Your task to perform on an android device: Check the news Image 0: 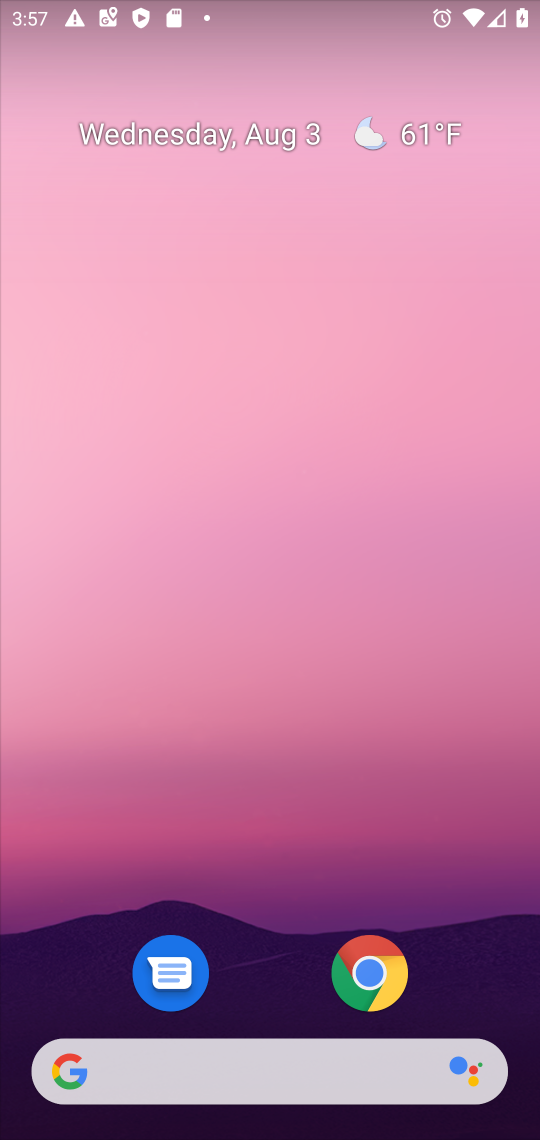
Step 0: click (353, 1053)
Your task to perform on an android device: Check the news Image 1: 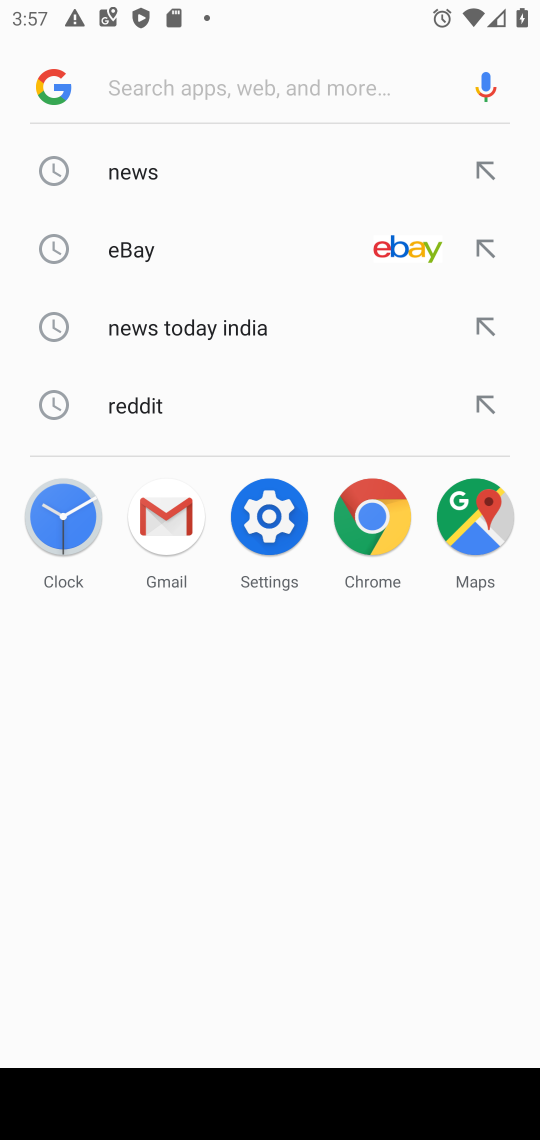
Step 1: click (147, 155)
Your task to perform on an android device: Check the news Image 2: 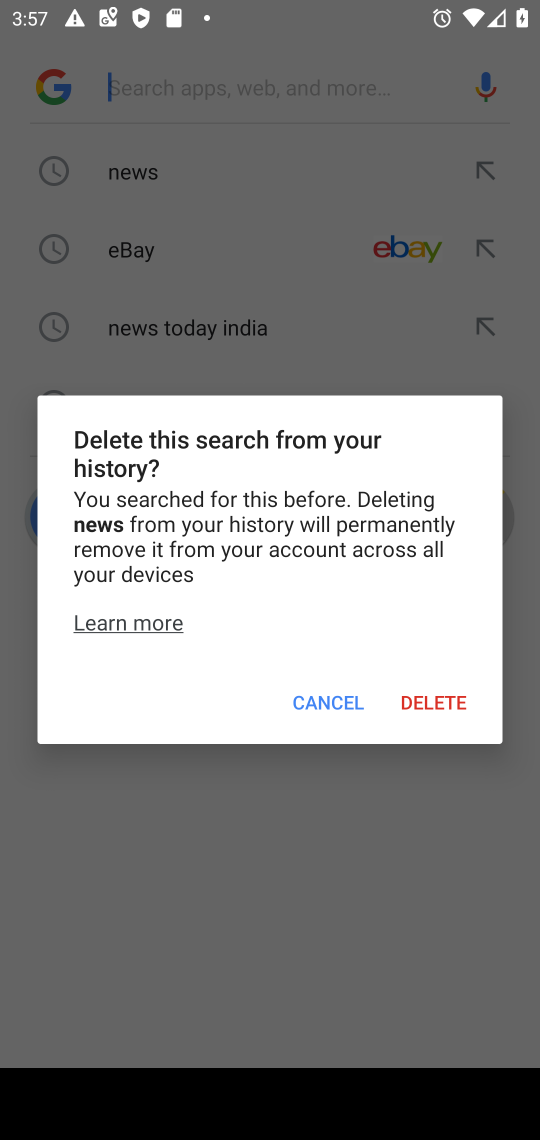
Step 2: click (343, 707)
Your task to perform on an android device: Check the news Image 3: 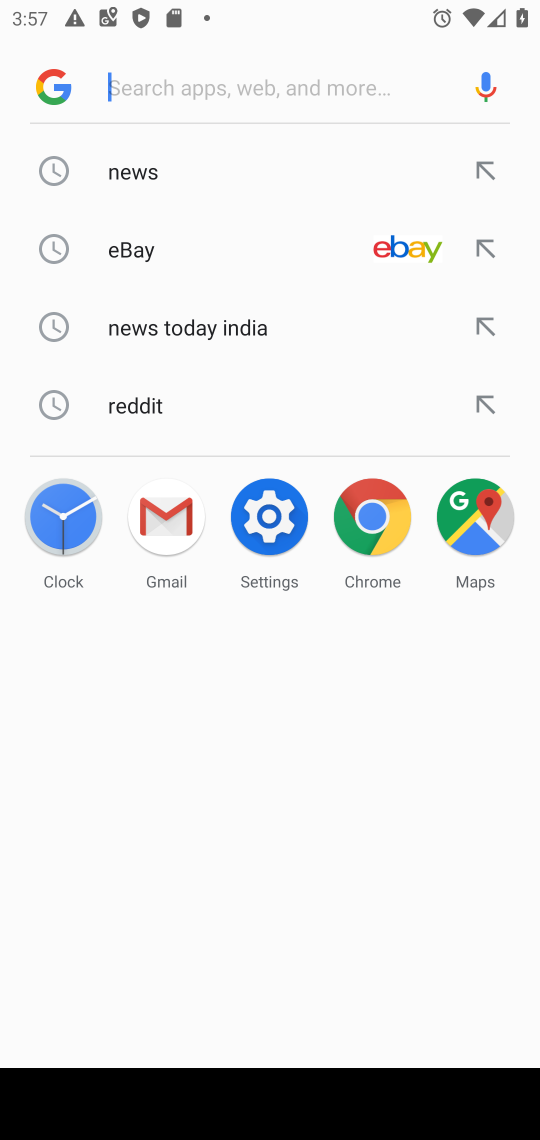
Step 3: click (166, 174)
Your task to perform on an android device: Check the news Image 4: 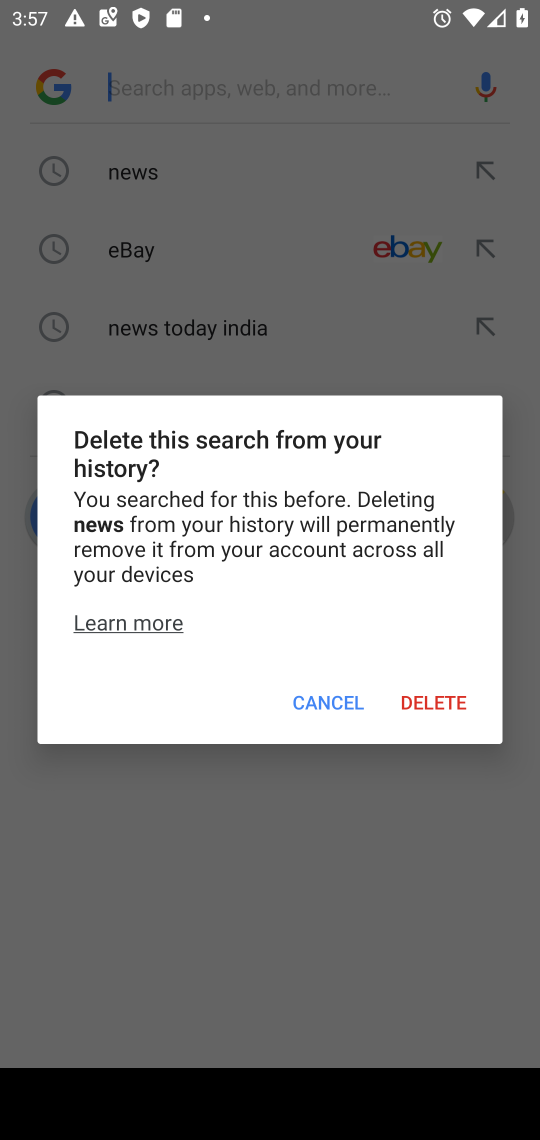
Step 4: click (340, 697)
Your task to perform on an android device: Check the news Image 5: 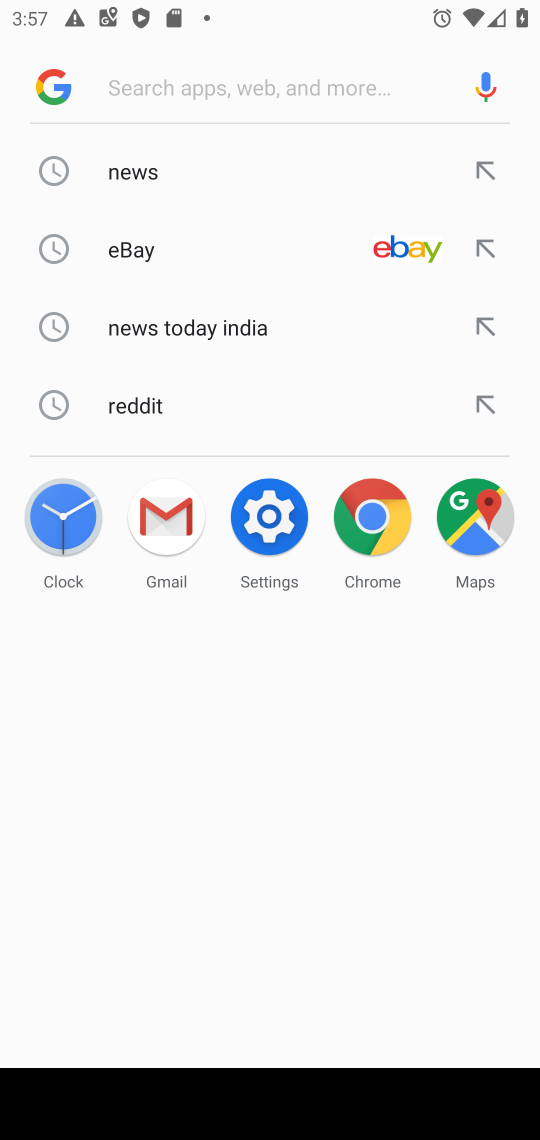
Step 5: click (288, 172)
Your task to perform on an android device: Check the news Image 6: 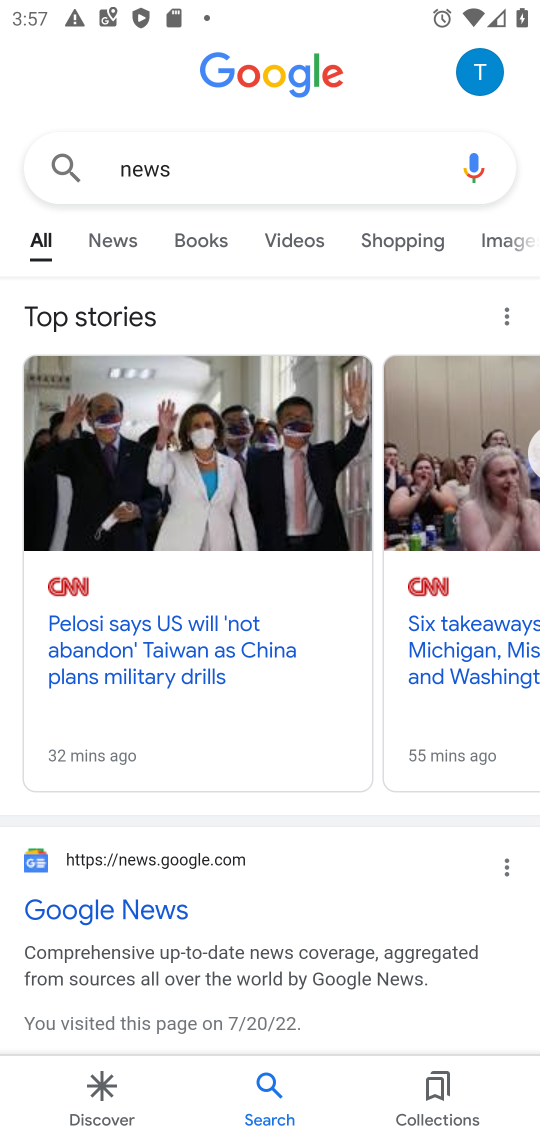
Step 6: drag from (430, 451) to (290, 463)
Your task to perform on an android device: Check the news Image 7: 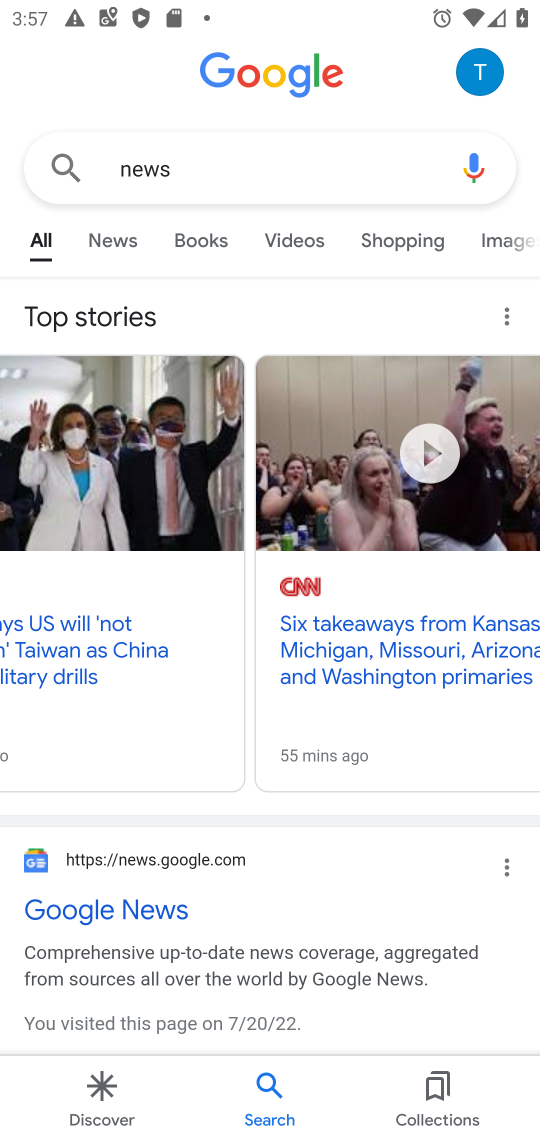
Step 7: click (378, 629)
Your task to perform on an android device: Check the news Image 8: 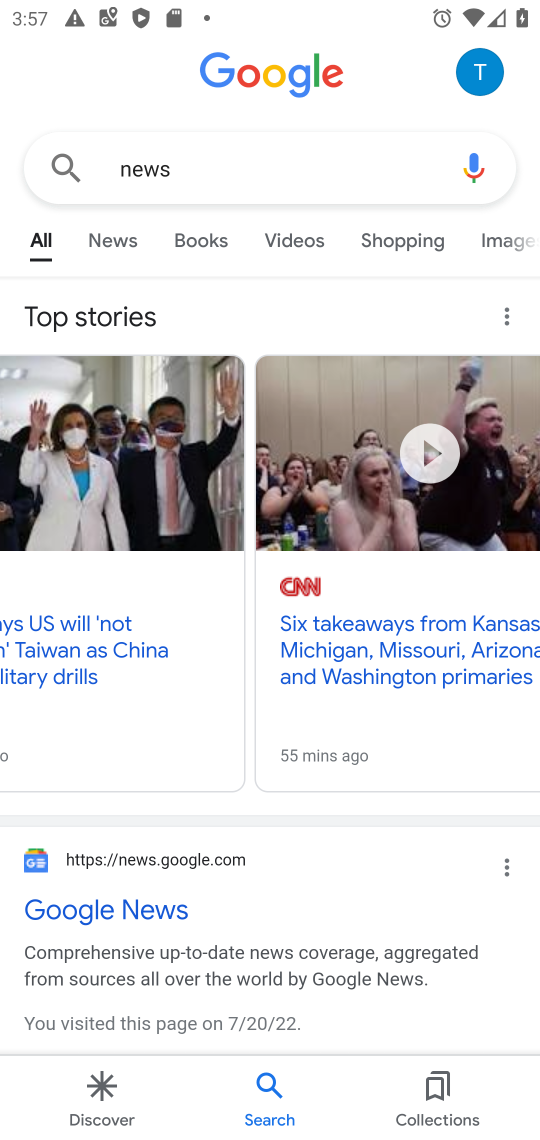
Step 8: click (378, 627)
Your task to perform on an android device: Check the news Image 9: 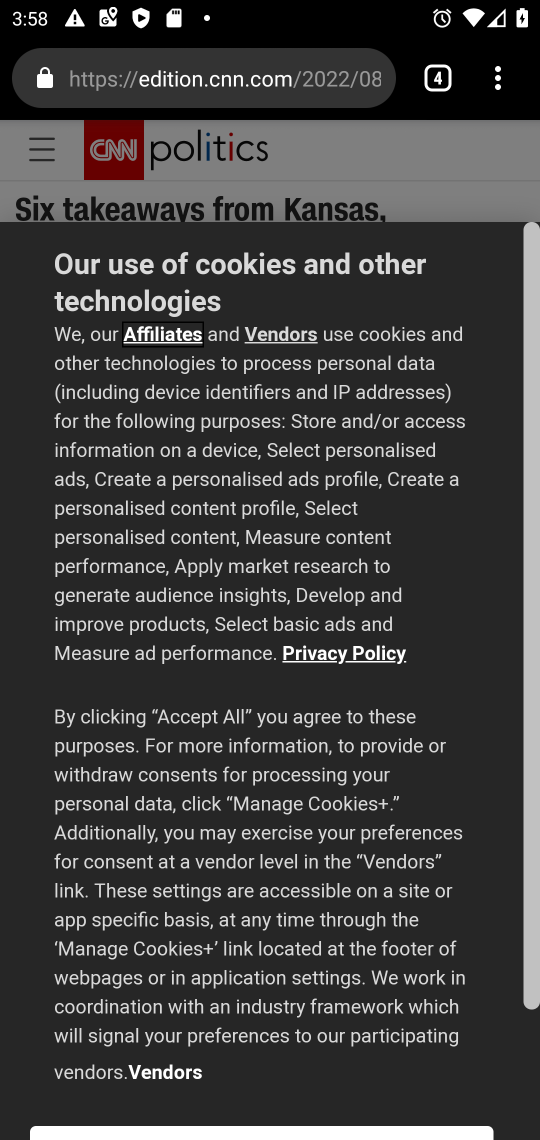
Step 9: drag from (342, 1015) to (249, 361)
Your task to perform on an android device: Check the news Image 10: 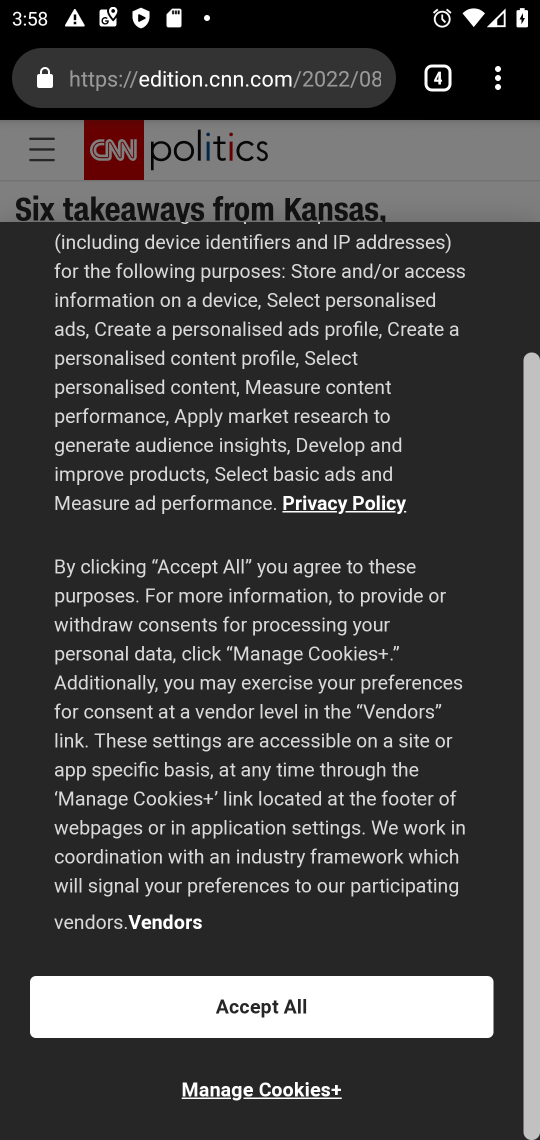
Step 10: click (309, 1021)
Your task to perform on an android device: Check the news Image 11: 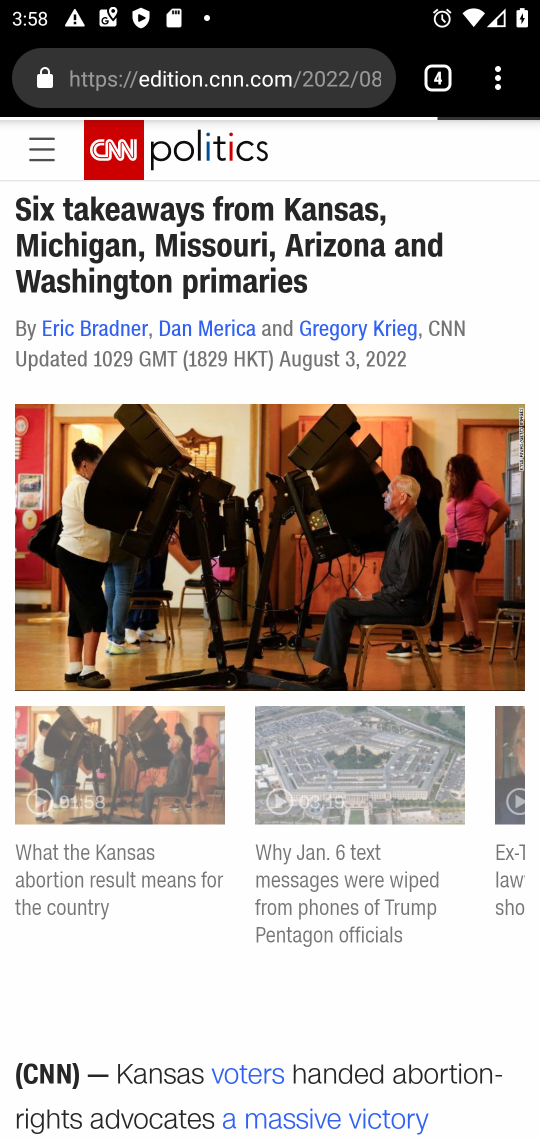
Step 11: task complete